Your task to perform on an android device: find which apps use the phone's location Image 0: 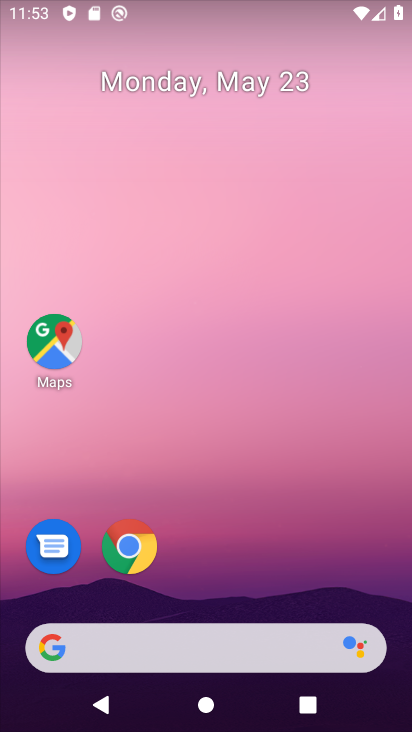
Step 0: drag from (269, 564) to (296, 28)
Your task to perform on an android device: find which apps use the phone's location Image 1: 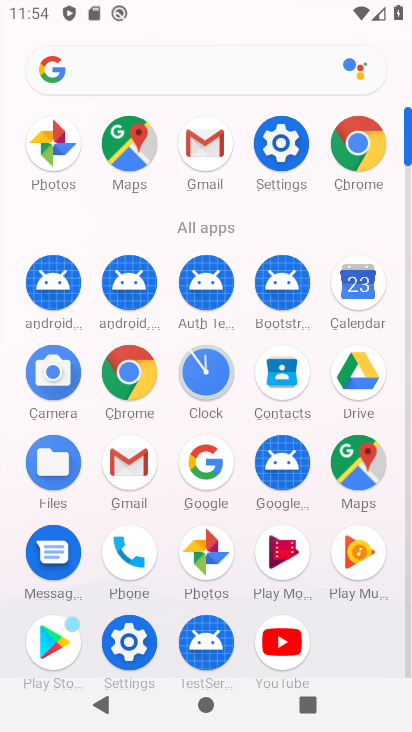
Step 1: click (267, 143)
Your task to perform on an android device: find which apps use the phone's location Image 2: 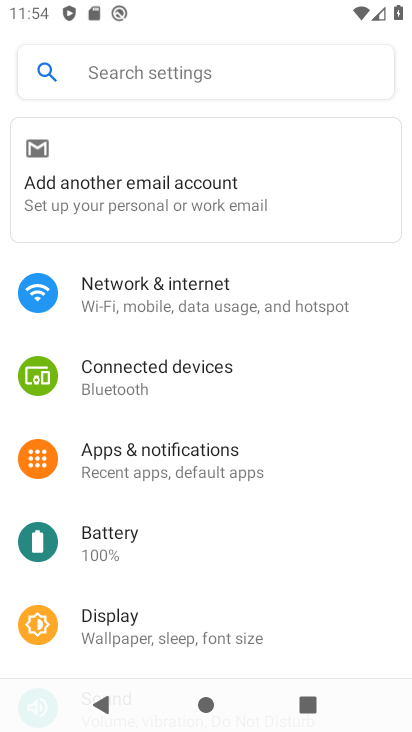
Step 2: drag from (237, 555) to (246, 308)
Your task to perform on an android device: find which apps use the phone's location Image 3: 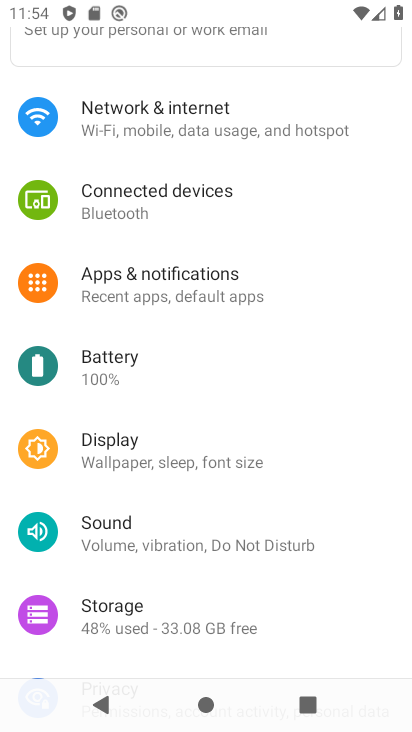
Step 3: drag from (206, 639) to (215, 215)
Your task to perform on an android device: find which apps use the phone's location Image 4: 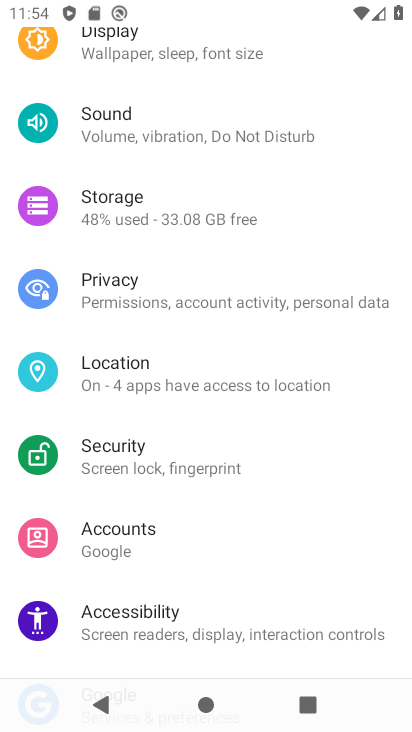
Step 4: click (154, 378)
Your task to perform on an android device: find which apps use the phone's location Image 5: 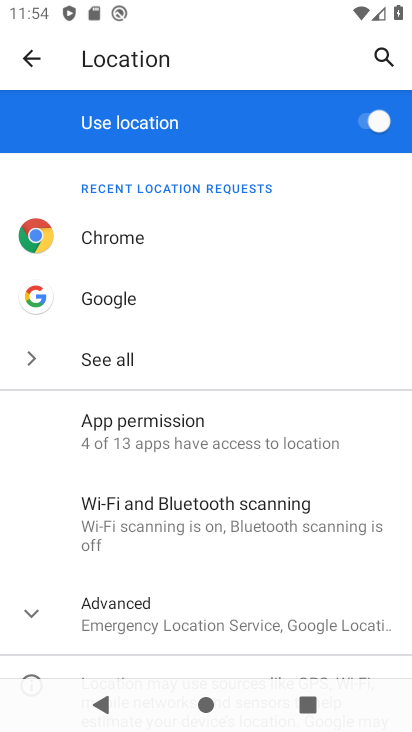
Step 5: drag from (167, 582) to (173, 187)
Your task to perform on an android device: find which apps use the phone's location Image 6: 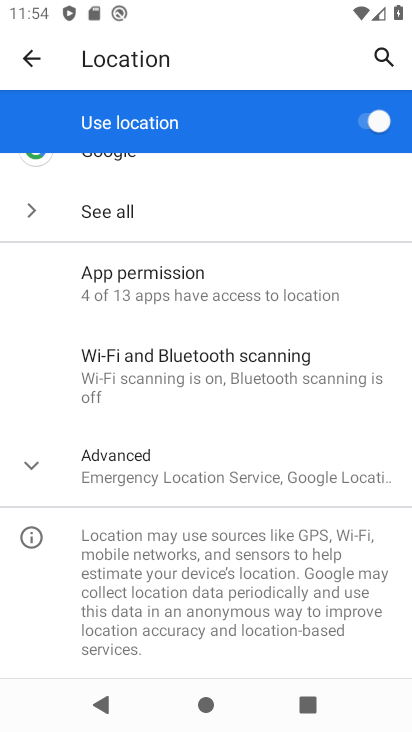
Step 6: drag from (256, 204) to (171, 611)
Your task to perform on an android device: find which apps use the phone's location Image 7: 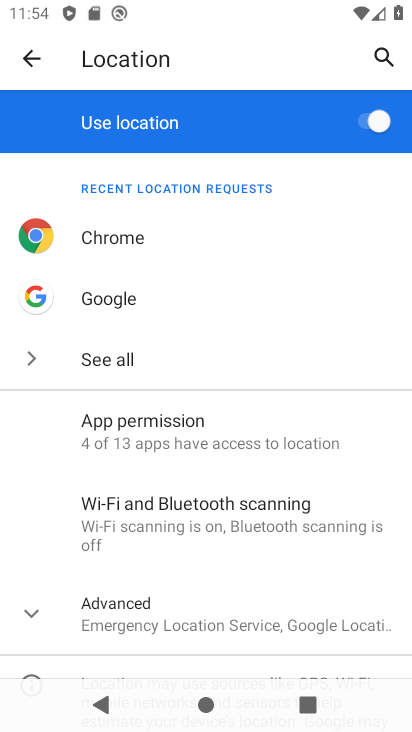
Step 7: click (141, 446)
Your task to perform on an android device: find which apps use the phone's location Image 8: 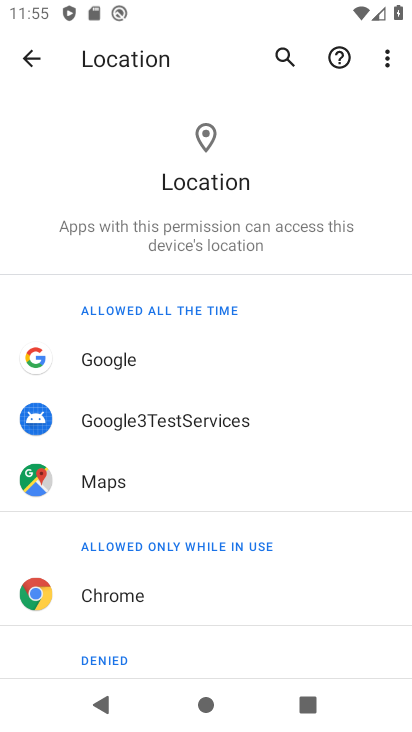
Step 8: task complete